Your task to perform on an android device: open a new tab in the chrome app Image 0: 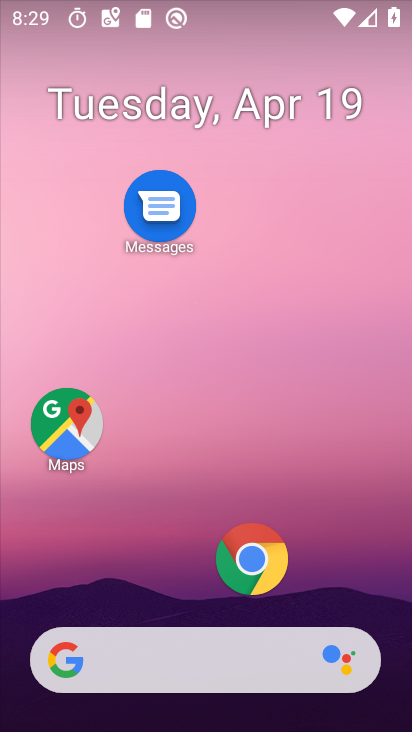
Step 0: click (253, 576)
Your task to perform on an android device: open a new tab in the chrome app Image 1: 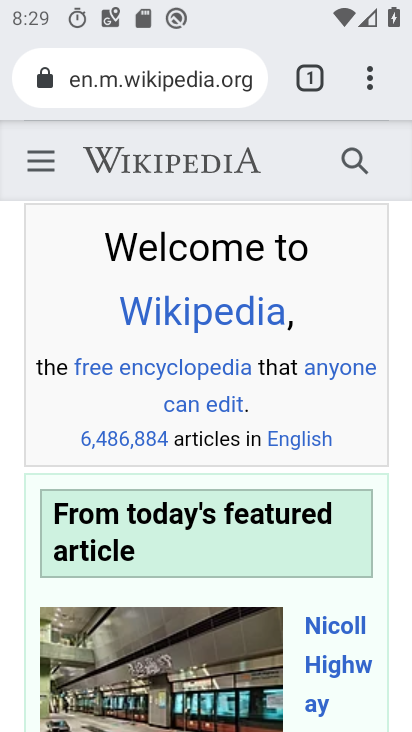
Step 1: click (354, 81)
Your task to perform on an android device: open a new tab in the chrome app Image 2: 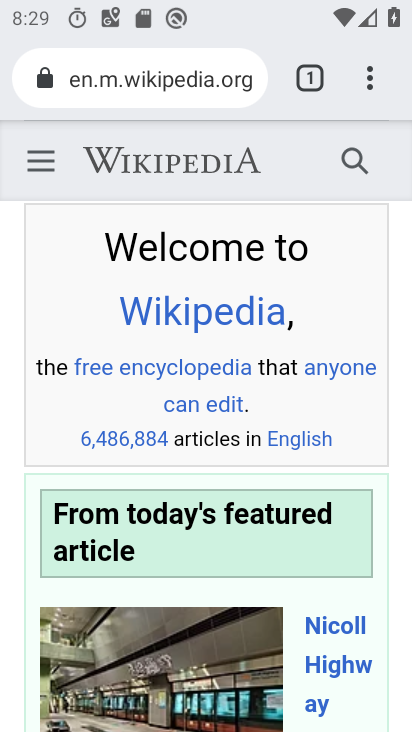
Step 2: task complete